Your task to perform on an android device: open a bookmark in the chrome app Image 0: 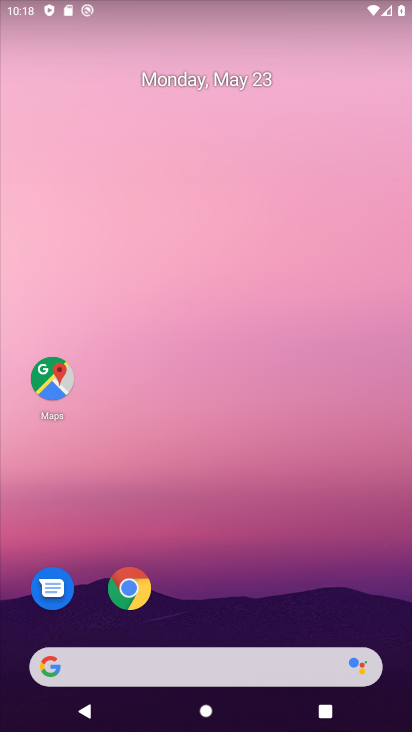
Step 0: click (136, 593)
Your task to perform on an android device: open a bookmark in the chrome app Image 1: 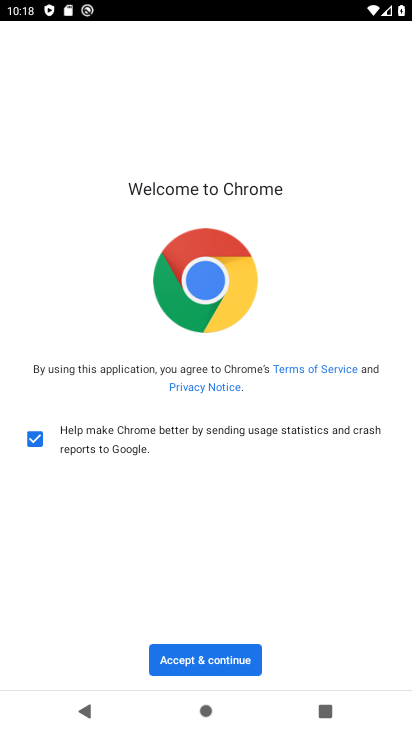
Step 1: click (190, 664)
Your task to perform on an android device: open a bookmark in the chrome app Image 2: 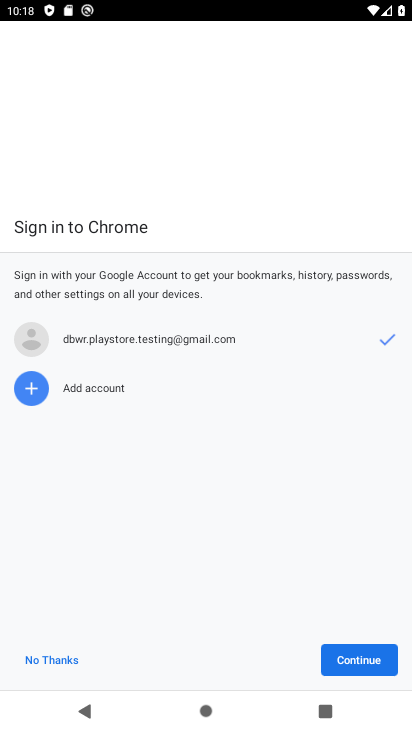
Step 2: click (332, 655)
Your task to perform on an android device: open a bookmark in the chrome app Image 3: 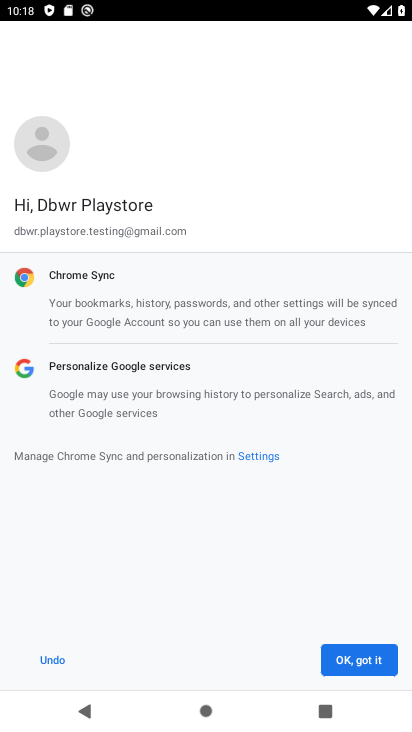
Step 3: click (333, 654)
Your task to perform on an android device: open a bookmark in the chrome app Image 4: 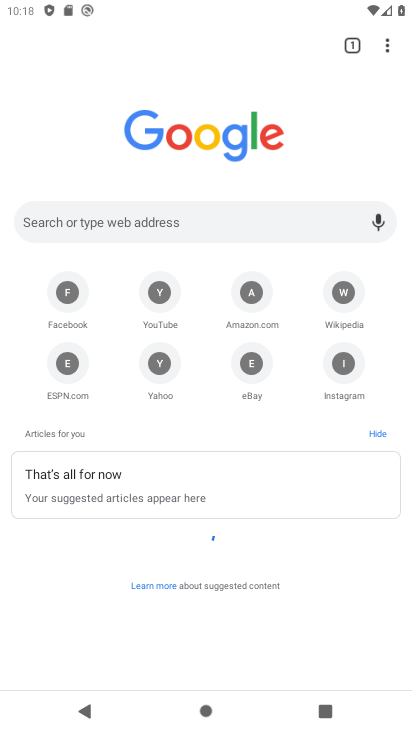
Step 4: task complete